Your task to perform on an android device: toggle notifications settings in the gmail app Image 0: 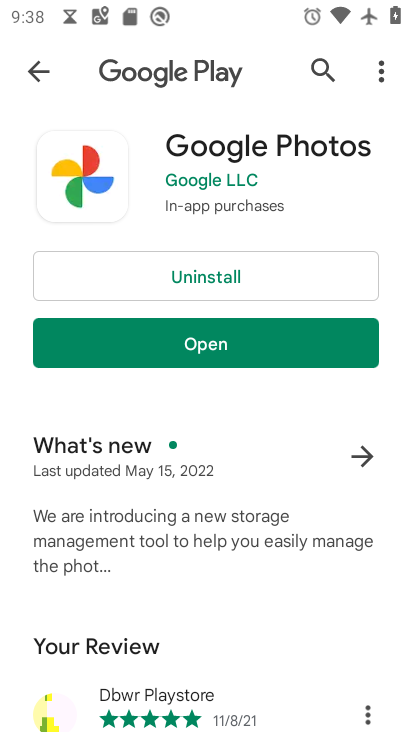
Step 0: press home button
Your task to perform on an android device: toggle notifications settings in the gmail app Image 1: 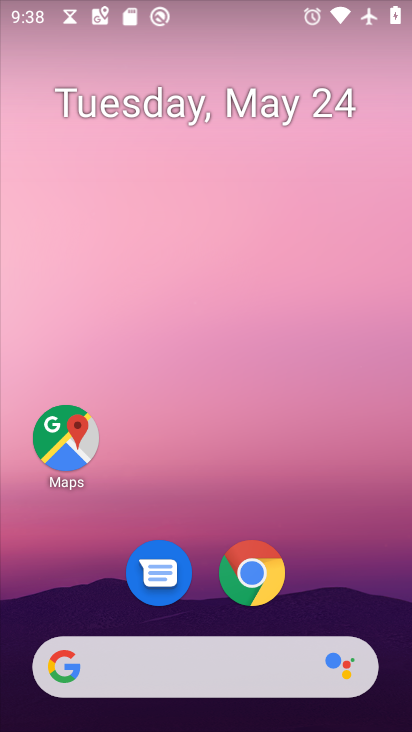
Step 1: drag from (383, 563) to (347, 32)
Your task to perform on an android device: toggle notifications settings in the gmail app Image 2: 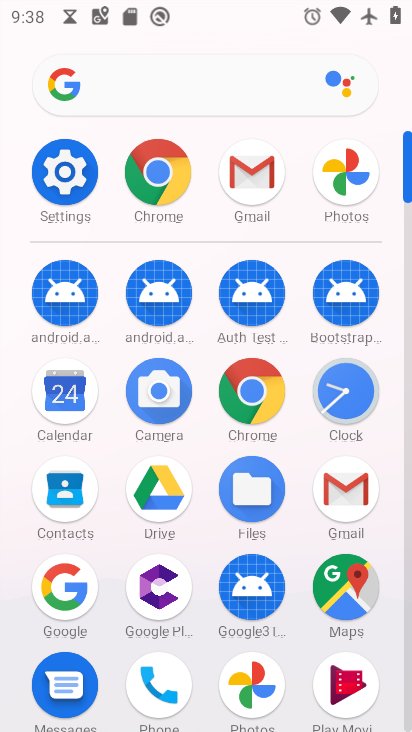
Step 2: click (250, 176)
Your task to perform on an android device: toggle notifications settings in the gmail app Image 3: 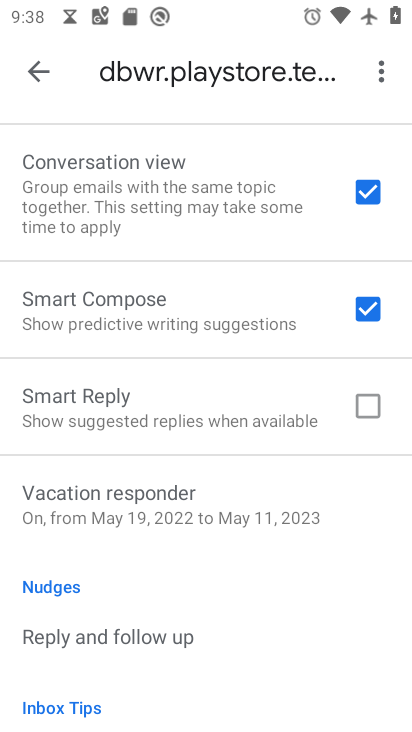
Step 3: drag from (164, 315) to (177, 631)
Your task to perform on an android device: toggle notifications settings in the gmail app Image 4: 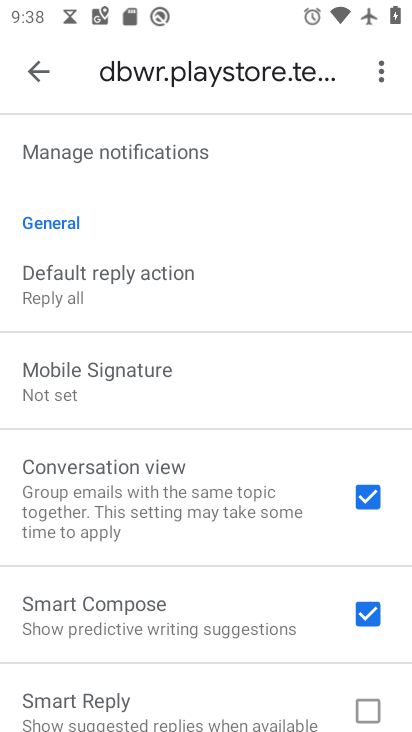
Step 4: drag from (148, 164) to (201, 694)
Your task to perform on an android device: toggle notifications settings in the gmail app Image 5: 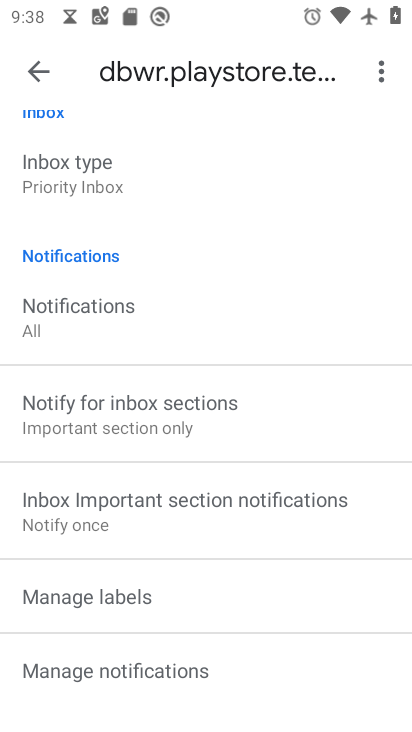
Step 5: drag from (236, 183) to (232, 608)
Your task to perform on an android device: toggle notifications settings in the gmail app Image 6: 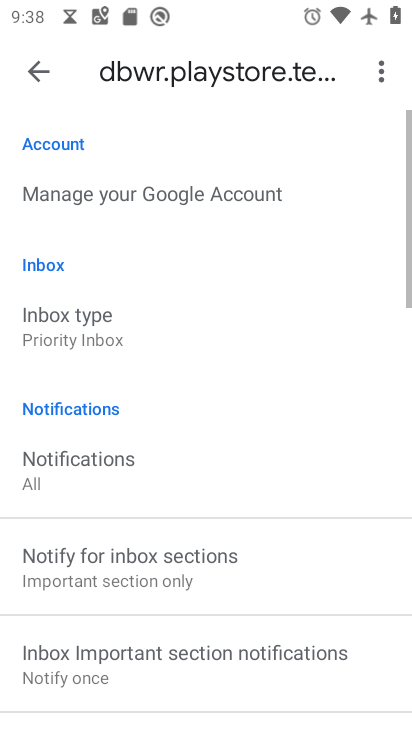
Step 6: click (66, 461)
Your task to perform on an android device: toggle notifications settings in the gmail app Image 7: 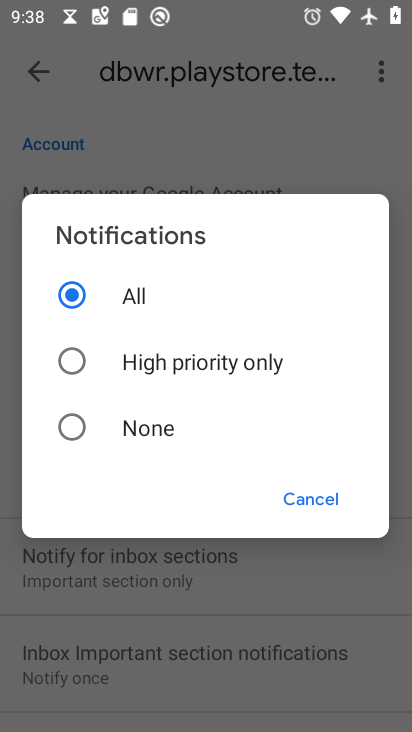
Step 7: click (62, 364)
Your task to perform on an android device: toggle notifications settings in the gmail app Image 8: 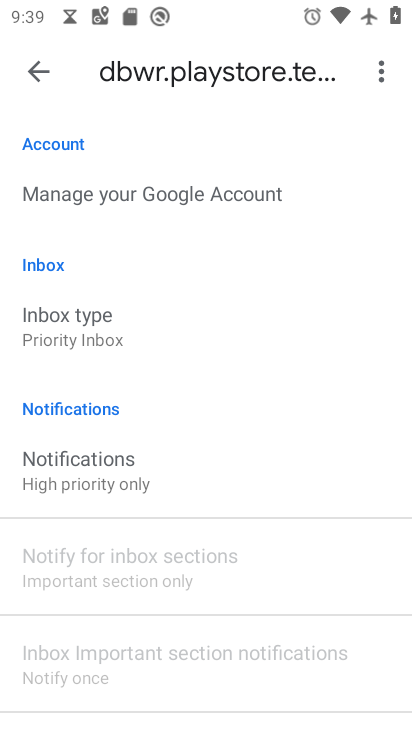
Step 8: task complete